Your task to perform on an android device: Go to eBay Image 0: 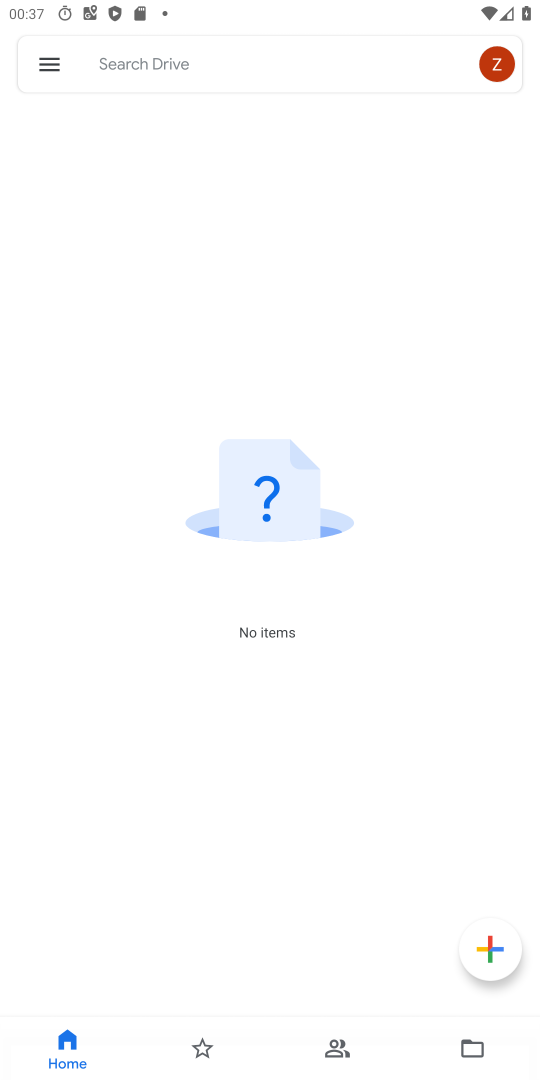
Step 0: press home button
Your task to perform on an android device: Go to eBay Image 1: 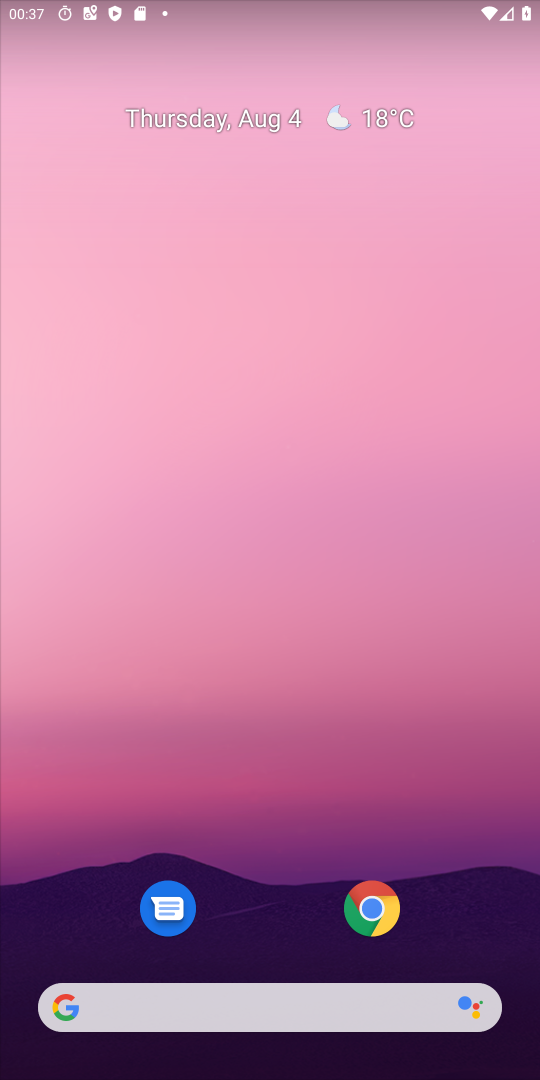
Step 1: drag from (308, 978) to (316, 308)
Your task to perform on an android device: Go to eBay Image 2: 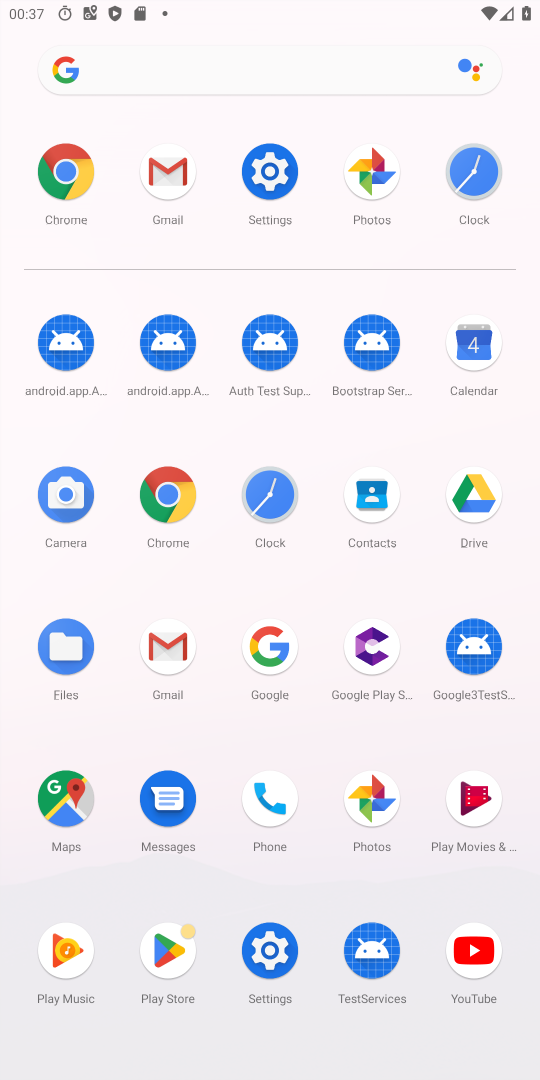
Step 2: click (72, 185)
Your task to perform on an android device: Go to eBay Image 3: 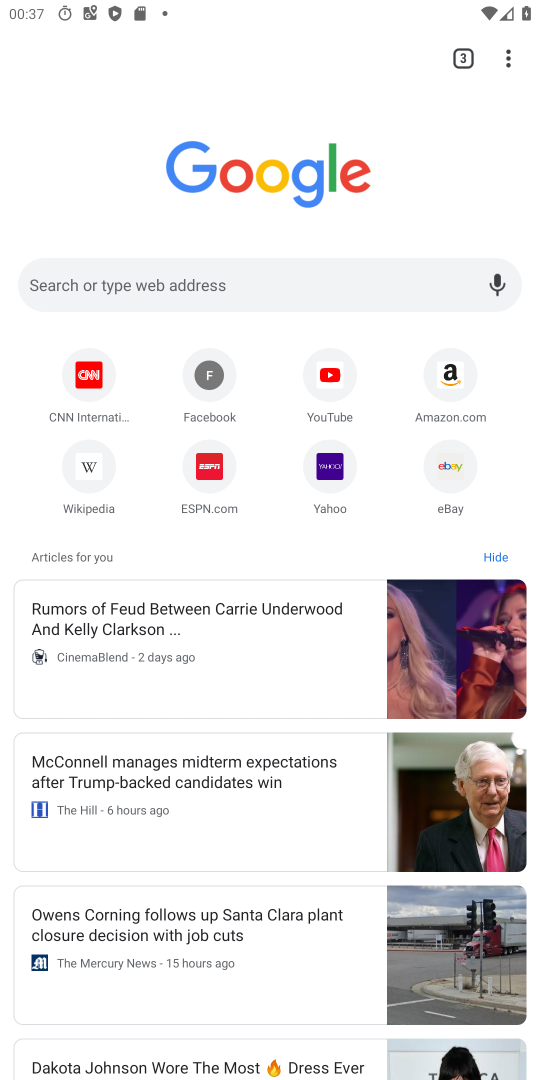
Step 3: click (434, 471)
Your task to perform on an android device: Go to eBay Image 4: 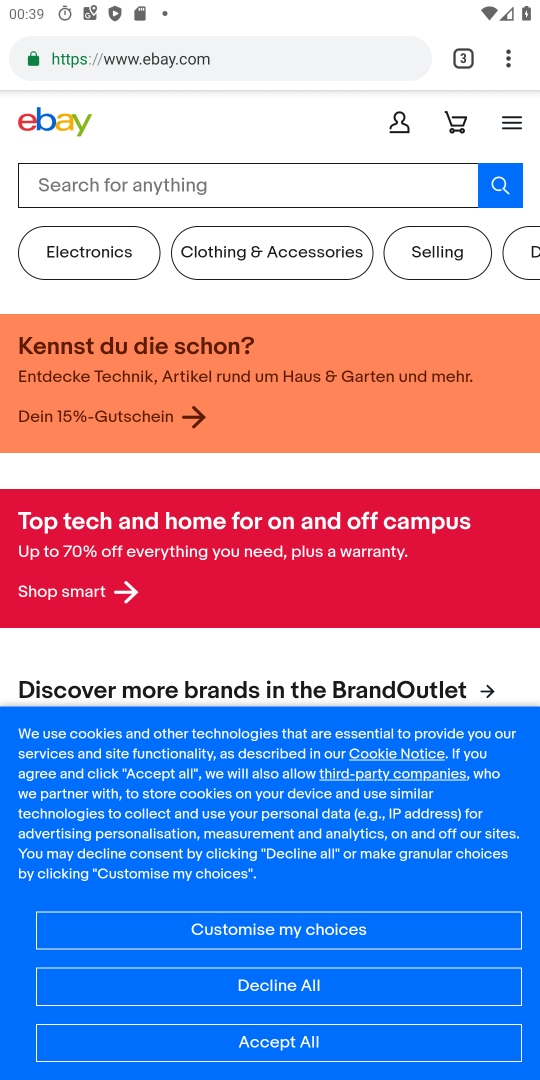
Step 4: task complete